Your task to perform on an android device: toggle notification dots Image 0: 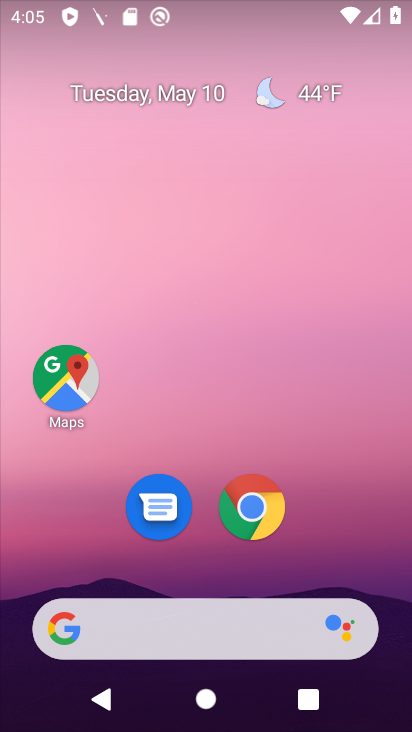
Step 0: drag from (161, 603) to (183, 133)
Your task to perform on an android device: toggle notification dots Image 1: 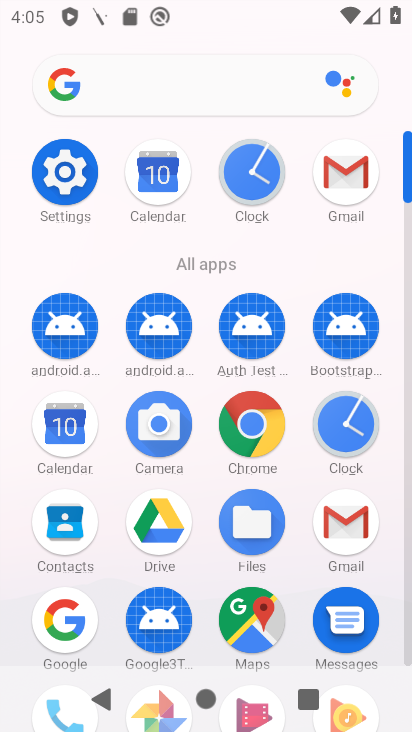
Step 1: drag from (220, 569) to (260, 582)
Your task to perform on an android device: toggle notification dots Image 2: 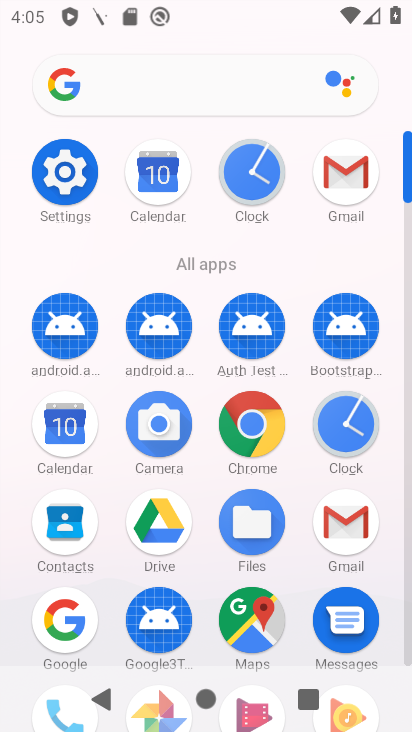
Step 2: click (50, 174)
Your task to perform on an android device: toggle notification dots Image 3: 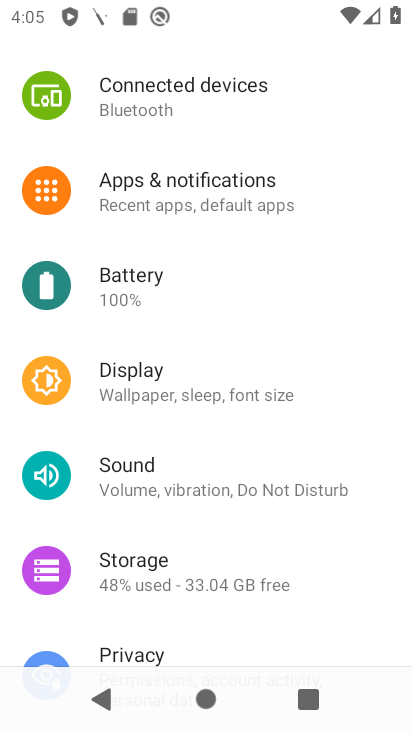
Step 3: click (197, 189)
Your task to perform on an android device: toggle notification dots Image 4: 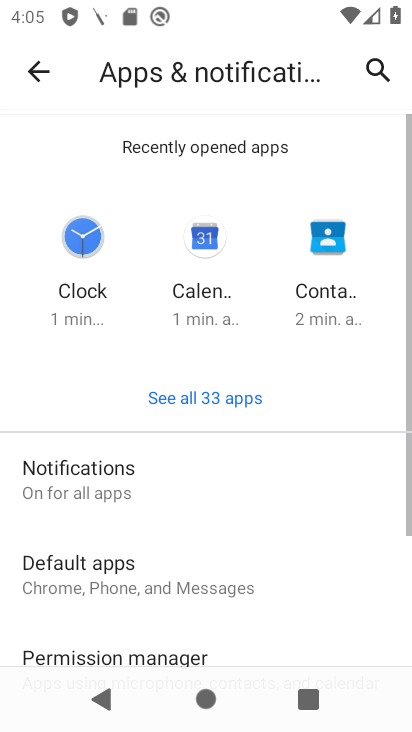
Step 4: click (108, 481)
Your task to perform on an android device: toggle notification dots Image 5: 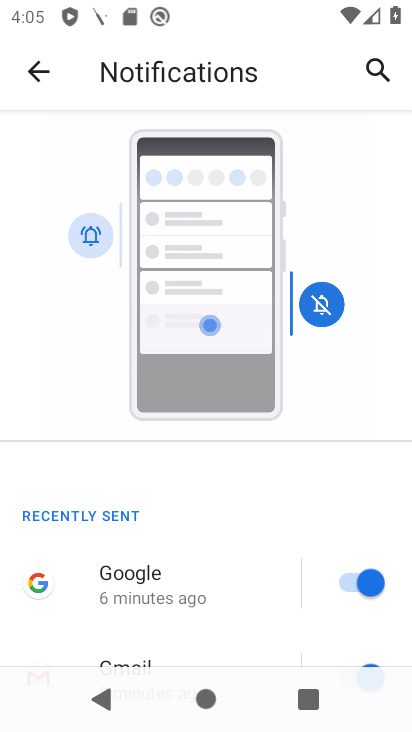
Step 5: drag from (130, 567) to (318, 138)
Your task to perform on an android device: toggle notification dots Image 6: 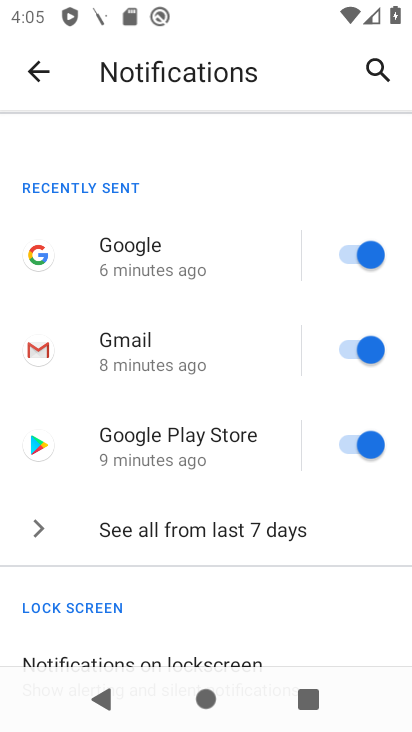
Step 6: drag from (195, 503) to (281, 140)
Your task to perform on an android device: toggle notification dots Image 7: 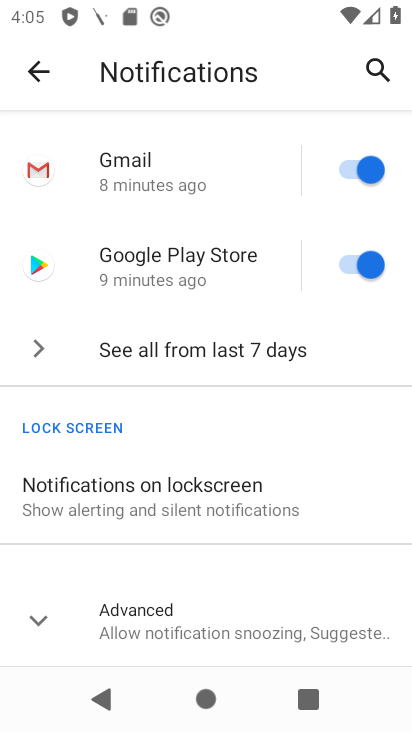
Step 7: click (161, 626)
Your task to perform on an android device: toggle notification dots Image 8: 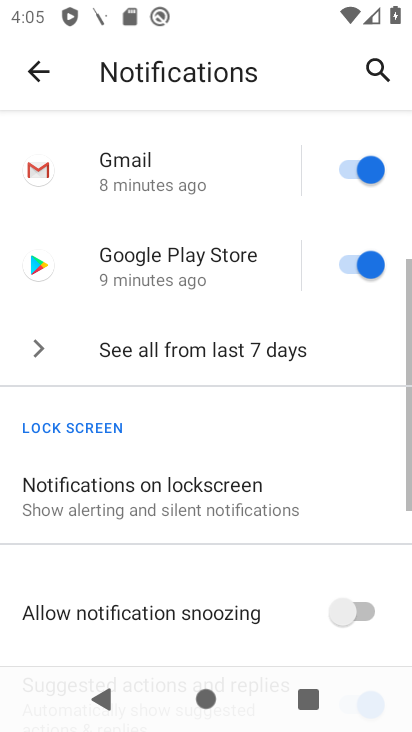
Step 8: drag from (161, 626) to (240, 249)
Your task to perform on an android device: toggle notification dots Image 9: 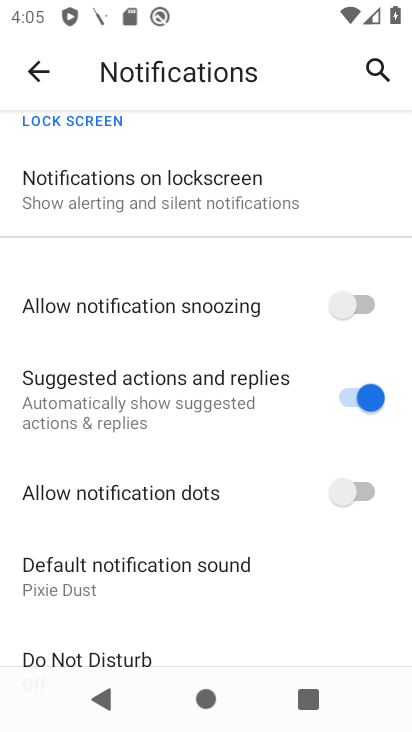
Step 9: click (361, 479)
Your task to perform on an android device: toggle notification dots Image 10: 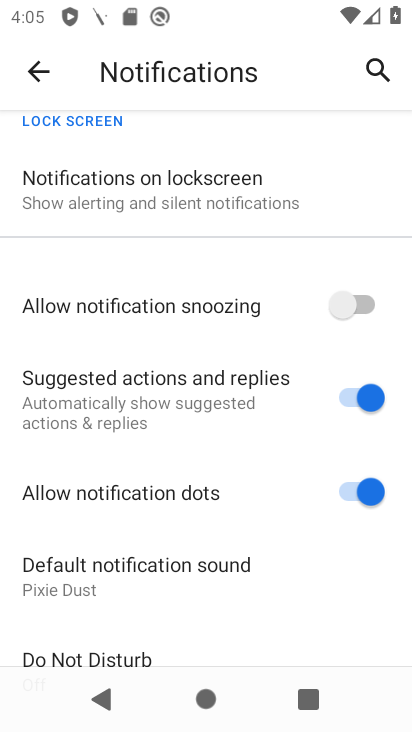
Step 10: task complete